Your task to perform on an android device: turn on location history Image 0: 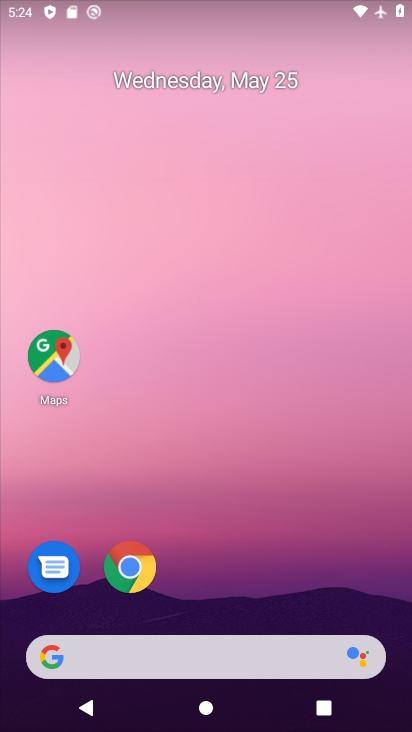
Step 0: drag from (280, 552) to (237, 12)
Your task to perform on an android device: turn on location history Image 1: 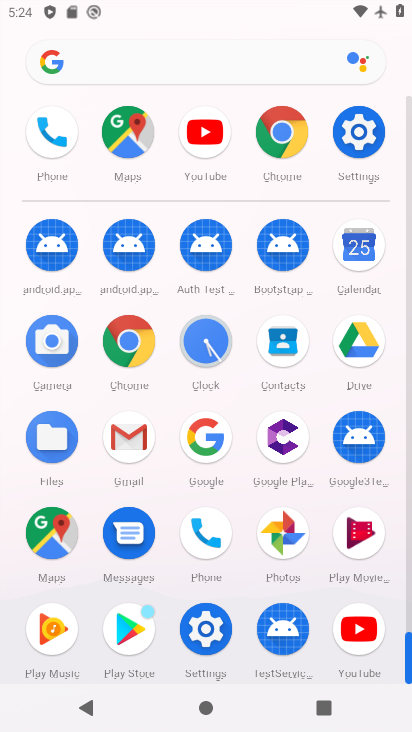
Step 1: drag from (8, 572) to (30, 258)
Your task to perform on an android device: turn on location history Image 2: 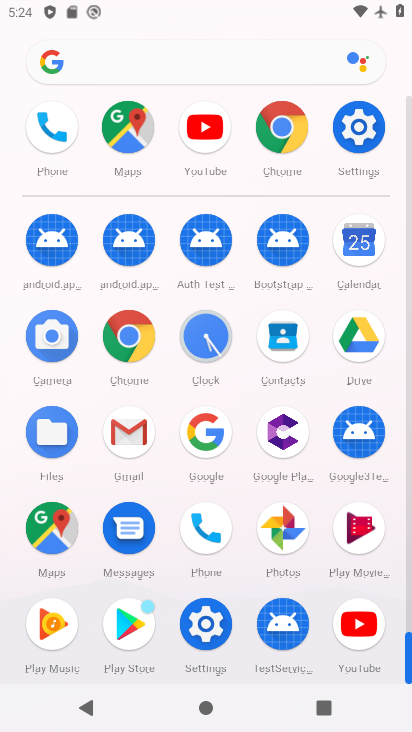
Step 2: click (205, 623)
Your task to perform on an android device: turn on location history Image 3: 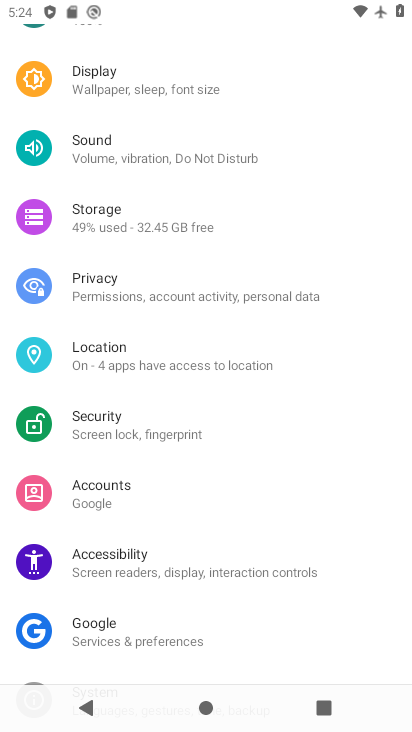
Step 3: drag from (235, 145) to (252, 528)
Your task to perform on an android device: turn on location history Image 4: 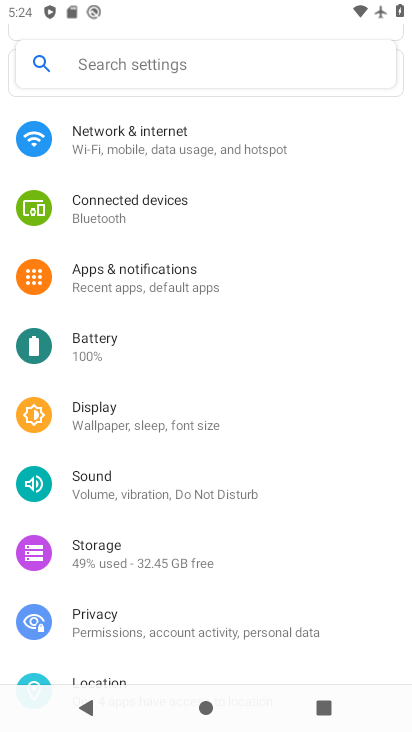
Step 4: drag from (238, 172) to (252, 480)
Your task to perform on an android device: turn on location history Image 5: 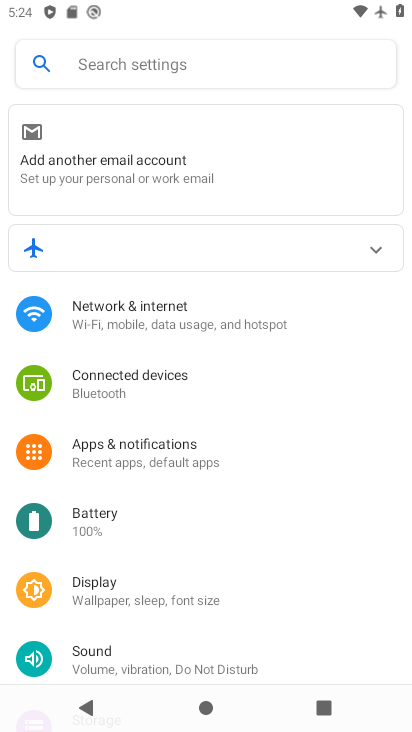
Step 5: drag from (229, 563) to (229, 244)
Your task to perform on an android device: turn on location history Image 6: 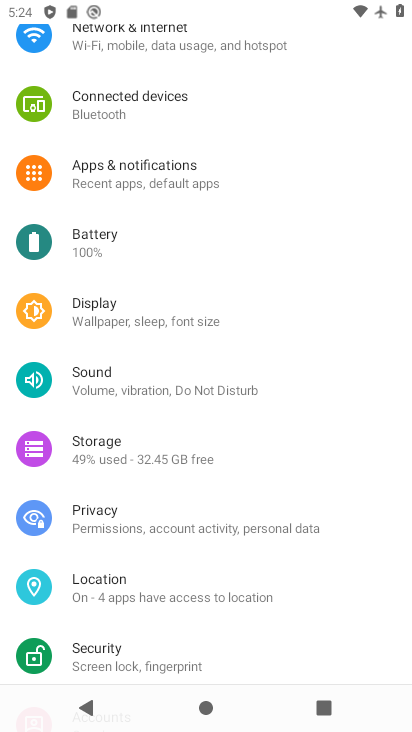
Step 6: click (143, 577)
Your task to perform on an android device: turn on location history Image 7: 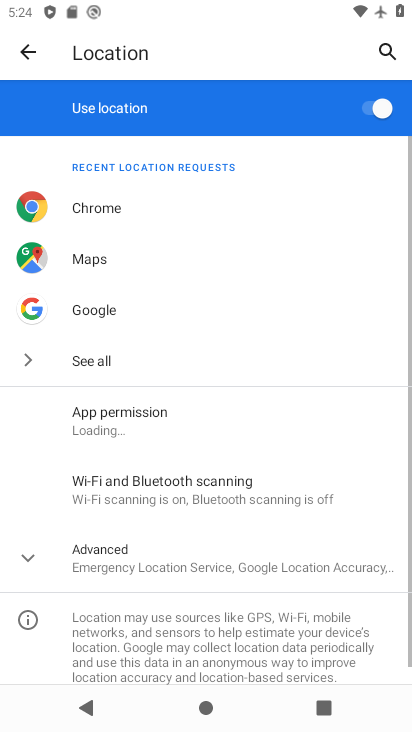
Step 7: click (81, 558)
Your task to perform on an android device: turn on location history Image 8: 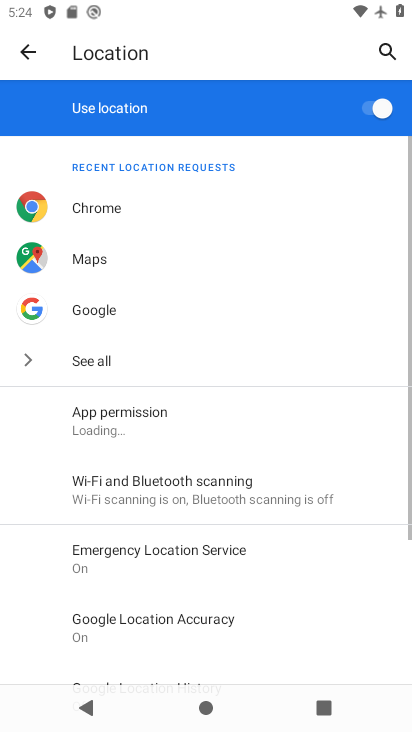
Step 8: drag from (242, 595) to (267, 262)
Your task to perform on an android device: turn on location history Image 9: 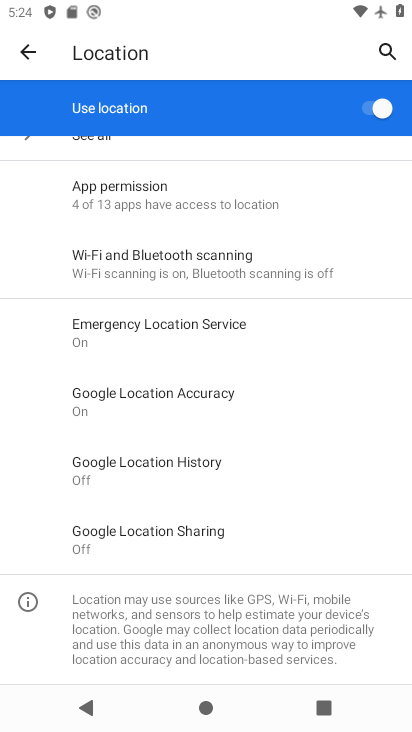
Step 9: click (180, 451)
Your task to perform on an android device: turn on location history Image 10: 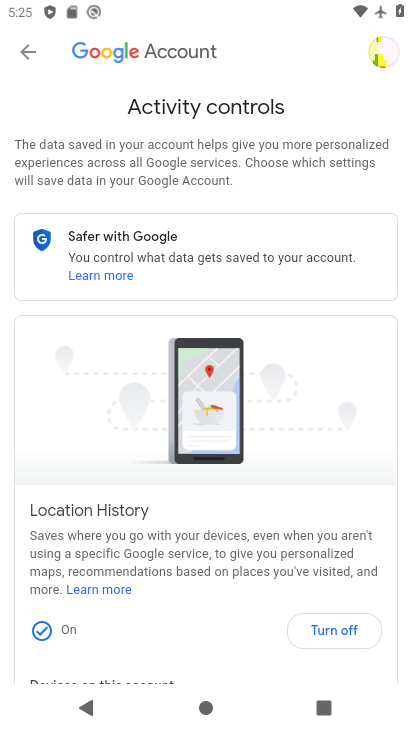
Step 10: task complete